Your task to perform on an android device: change notification settings in the gmail app Image 0: 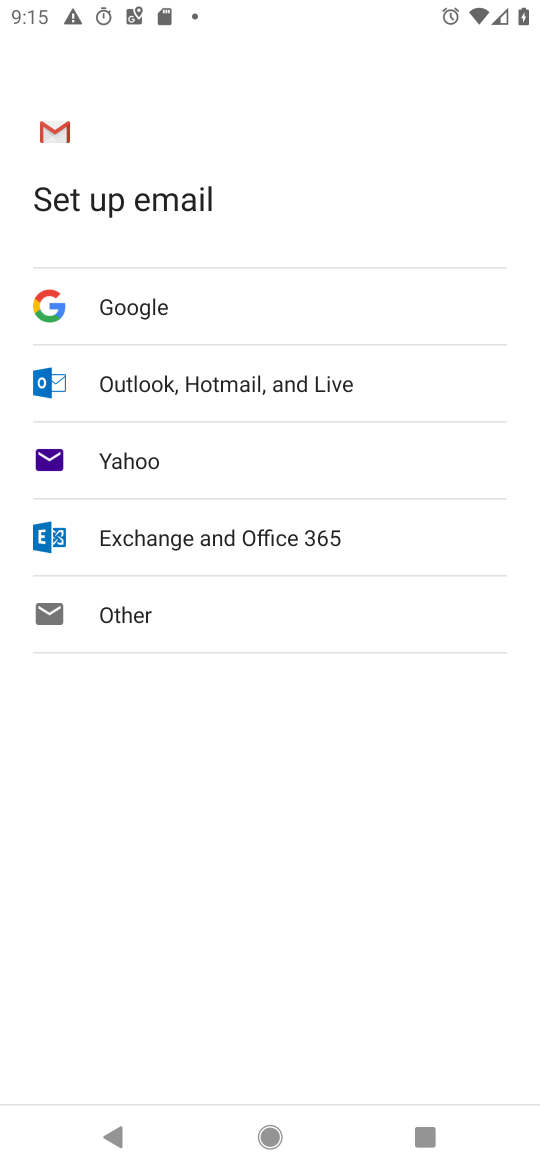
Step 0: press home button
Your task to perform on an android device: change notification settings in the gmail app Image 1: 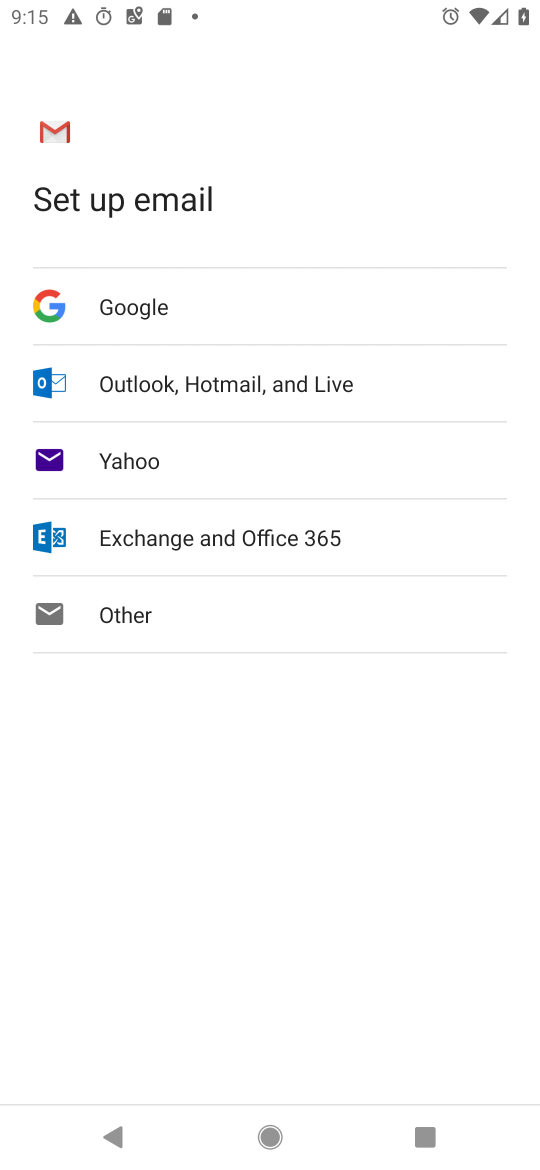
Step 1: drag from (259, 949) to (359, 24)
Your task to perform on an android device: change notification settings in the gmail app Image 2: 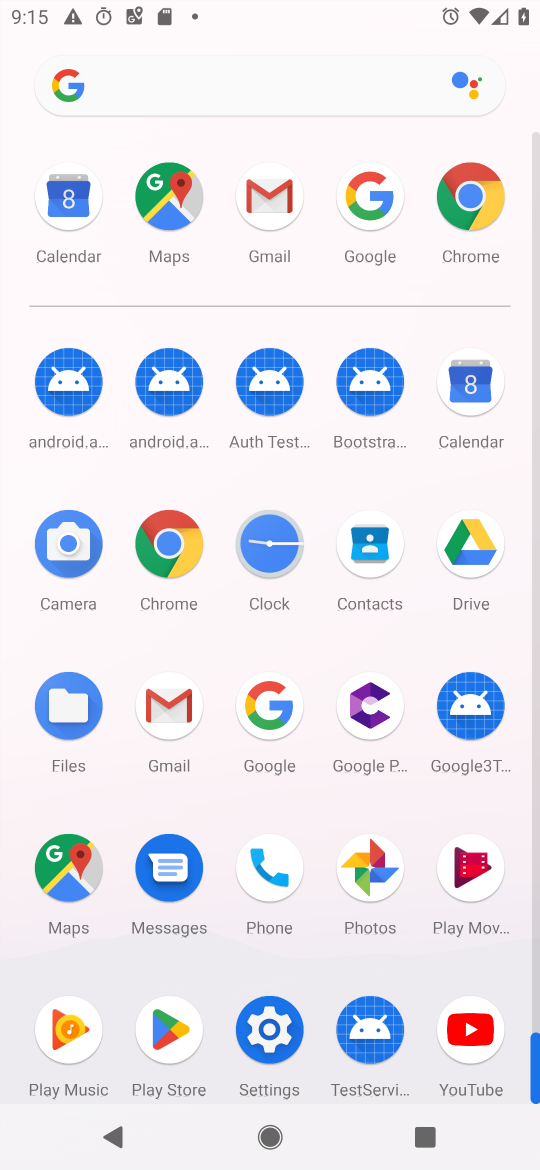
Step 2: click (159, 694)
Your task to perform on an android device: change notification settings in the gmail app Image 3: 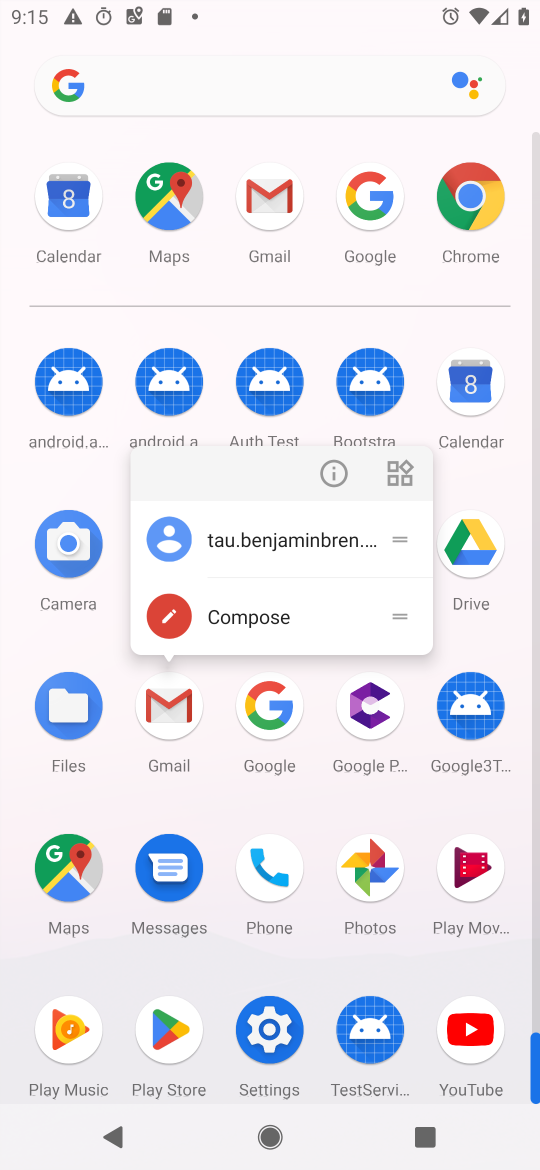
Step 3: click (329, 467)
Your task to perform on an android device: change notification settings in the gmail app Image 4: 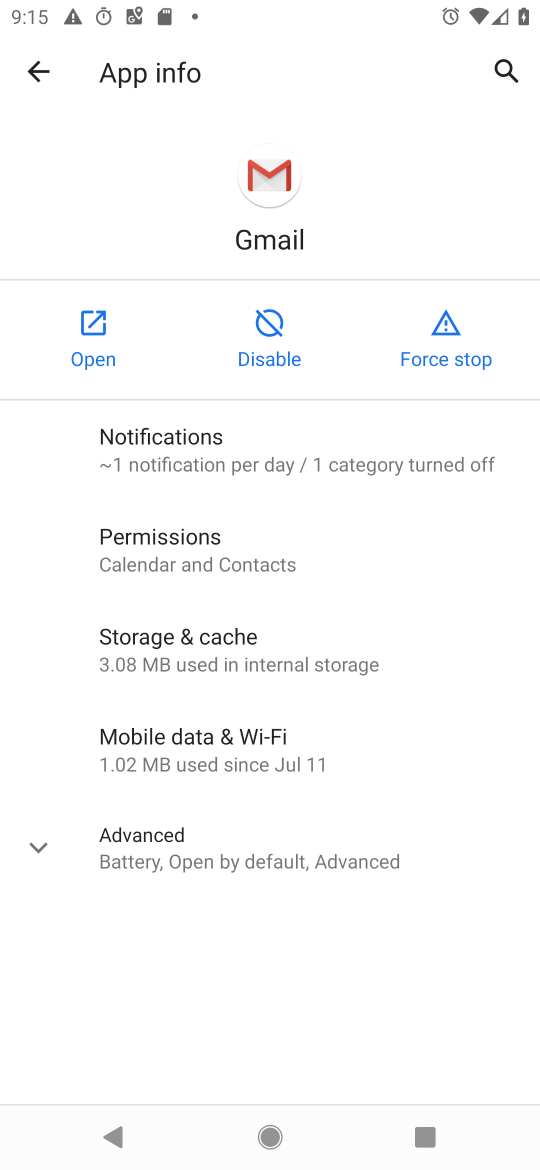
Step 4: click (79, 342)
Your task to perform on an android device: change notification settings in the gmail app Image 5: 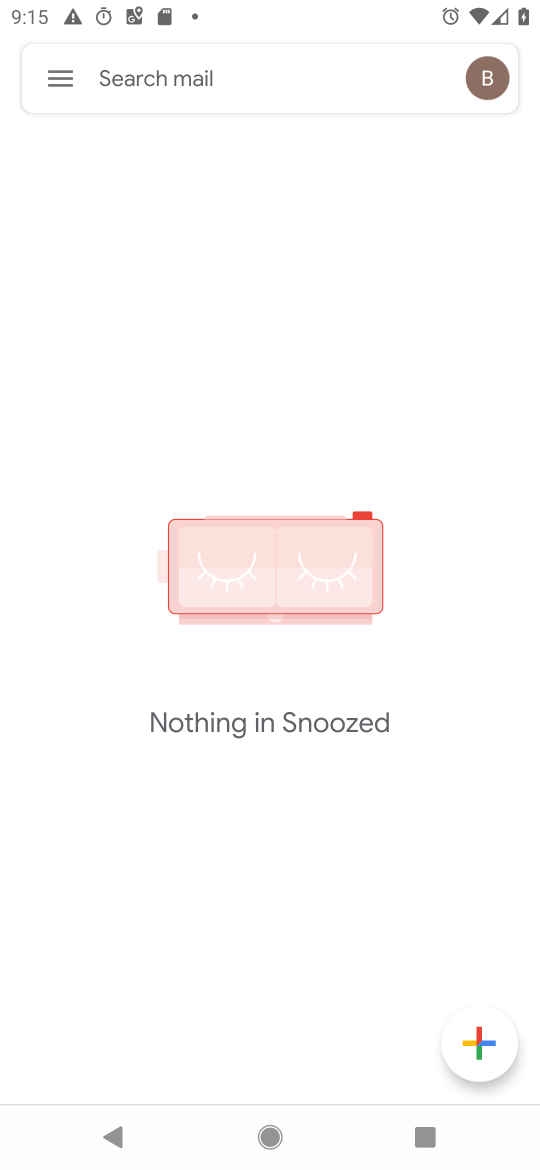
Step 5: click (76, 69)
Your task to perform on an android device: change notification settings in the gmail app Image 6: 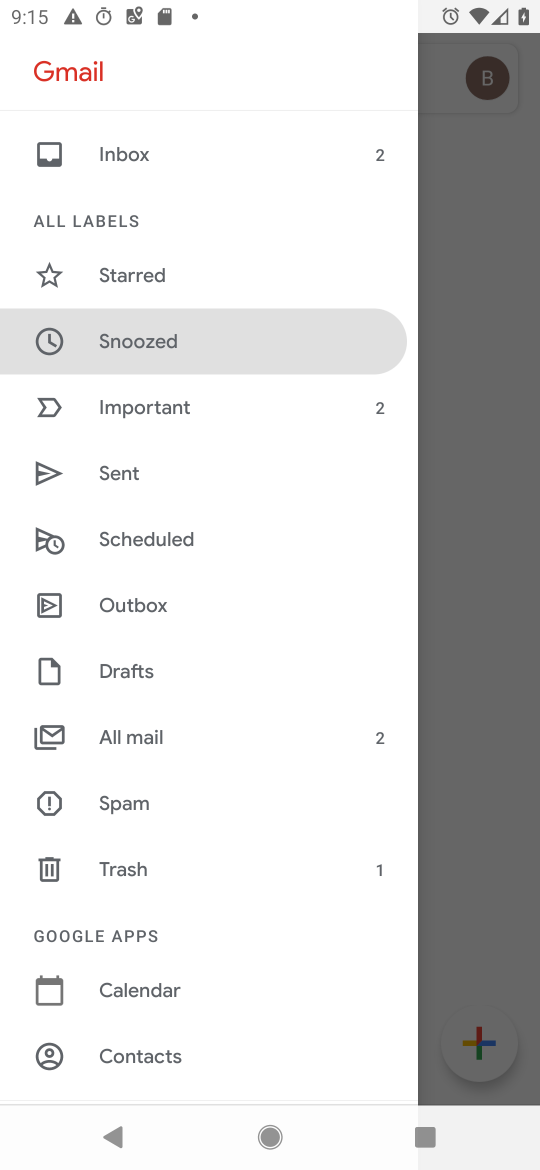
Step 6: drag from (145, 910) to (287, 68)
Your task to perform on an android device: change notification settings in the gmail app Image 7: 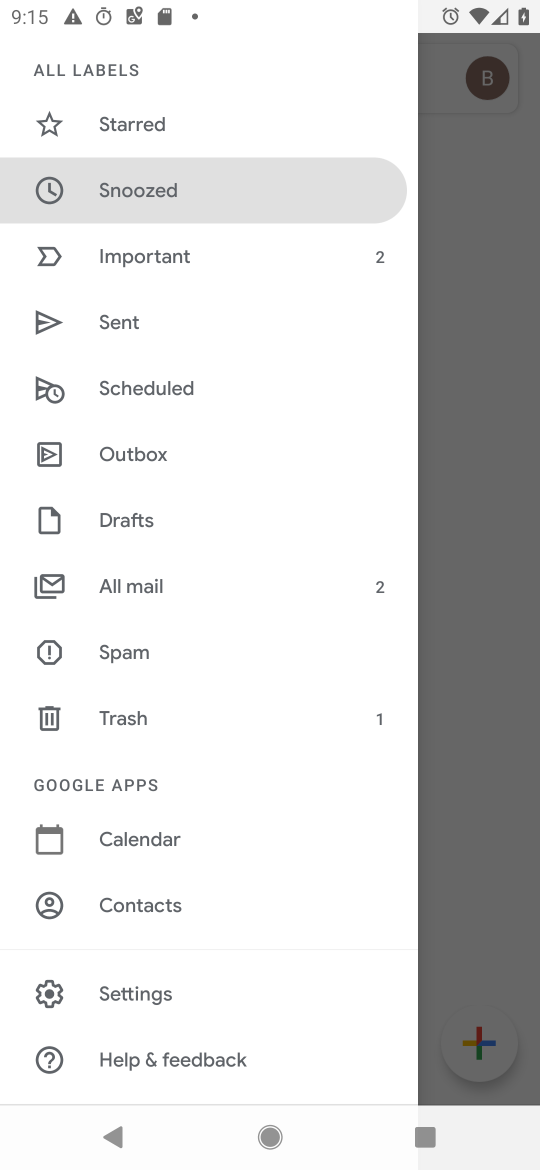
Step 7: click (142, 998)
Your task to perform on an android device: change notification settings in the gmail app Image 8: 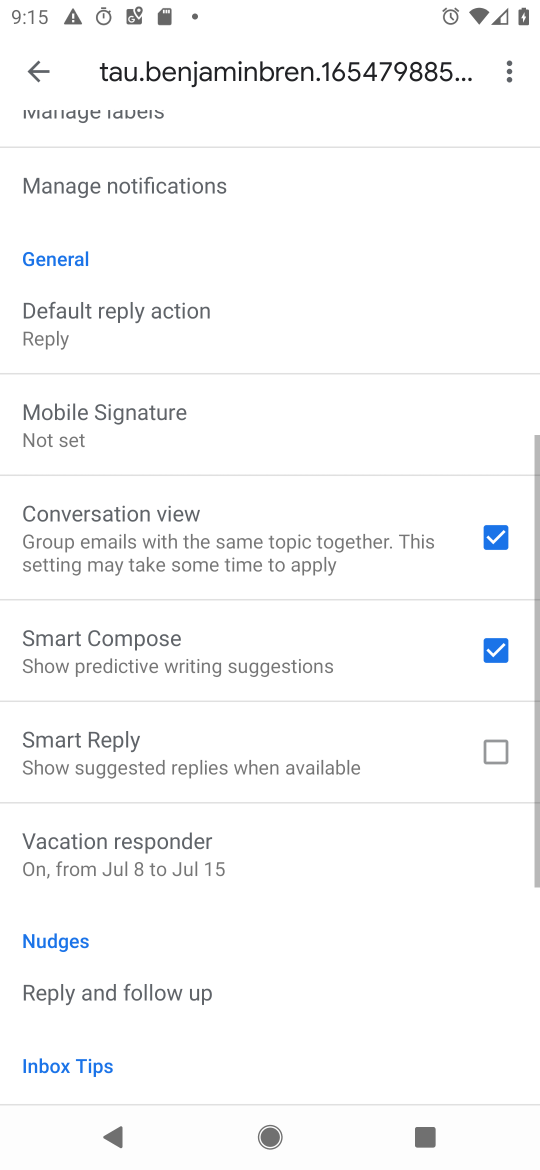
Step 8: drag from (178, 887) to (271, 319)
Your task to perform on an android device: change notification settings in the gmail app Image 9: 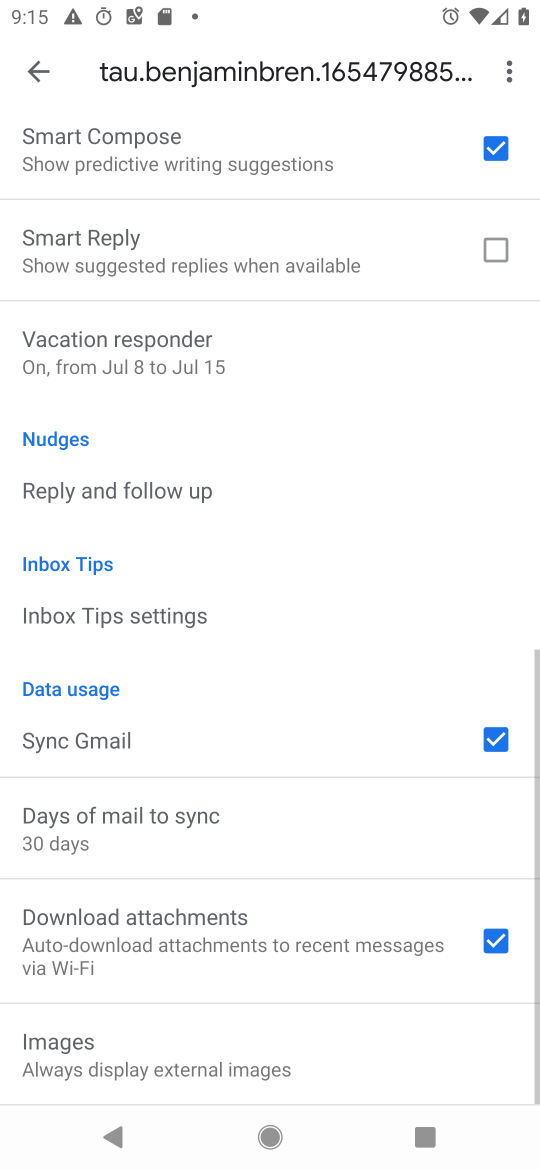
Step 9: drag from (227, 494) to (291, 1163)
Your task to perform on an android device: change notification settings in the gmail app Image 10: 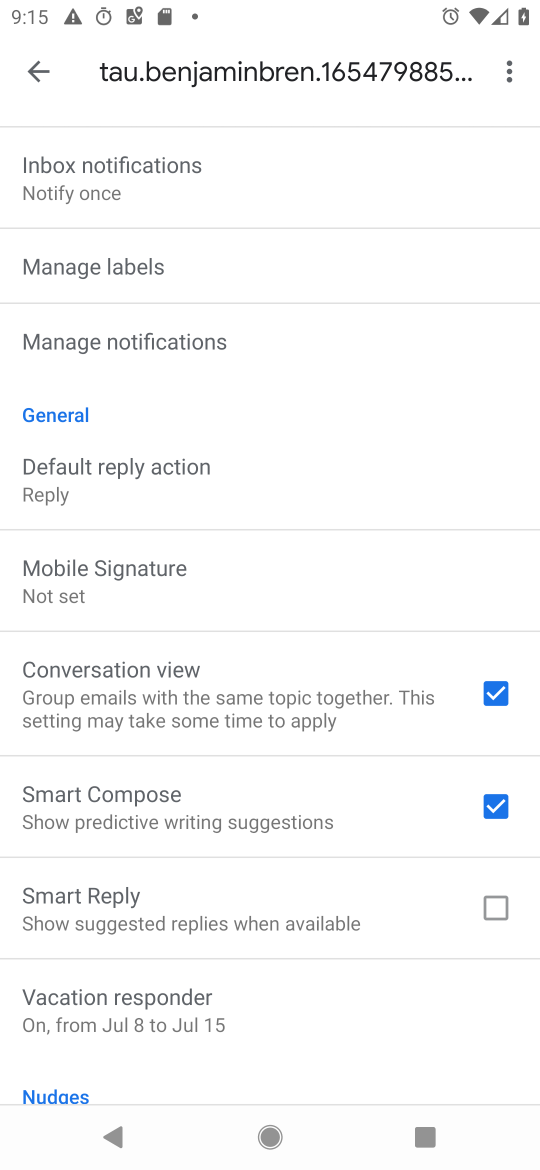
Step 10: click (172, 348)
Your task to perform on an android device: change notification settings in the gmail app Image 11: 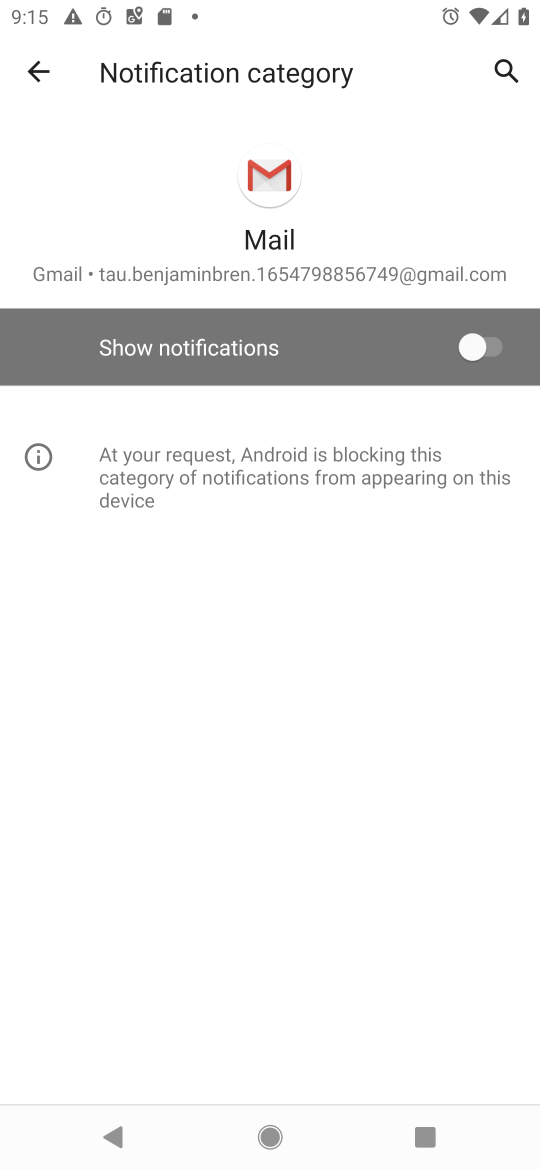
Step 11: drag from (390, 843) to (392, 680)
Your task to perform on an android device: change notification settings in the gmail app Image 12: 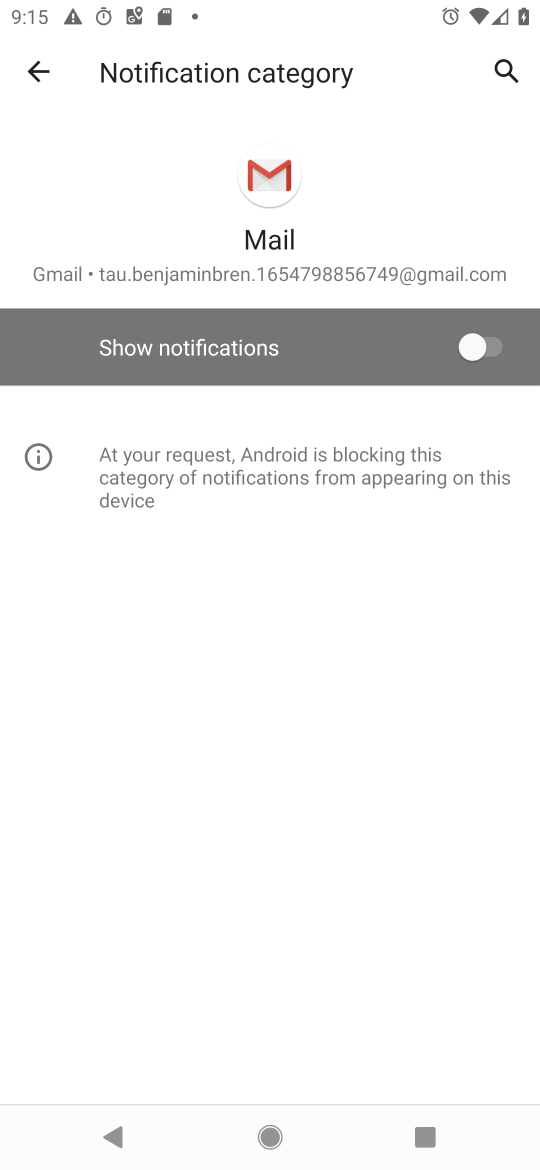
Step 12: click (459, 342)
Your task to perform on an android device: change notification settings in the gmail app Image 13: 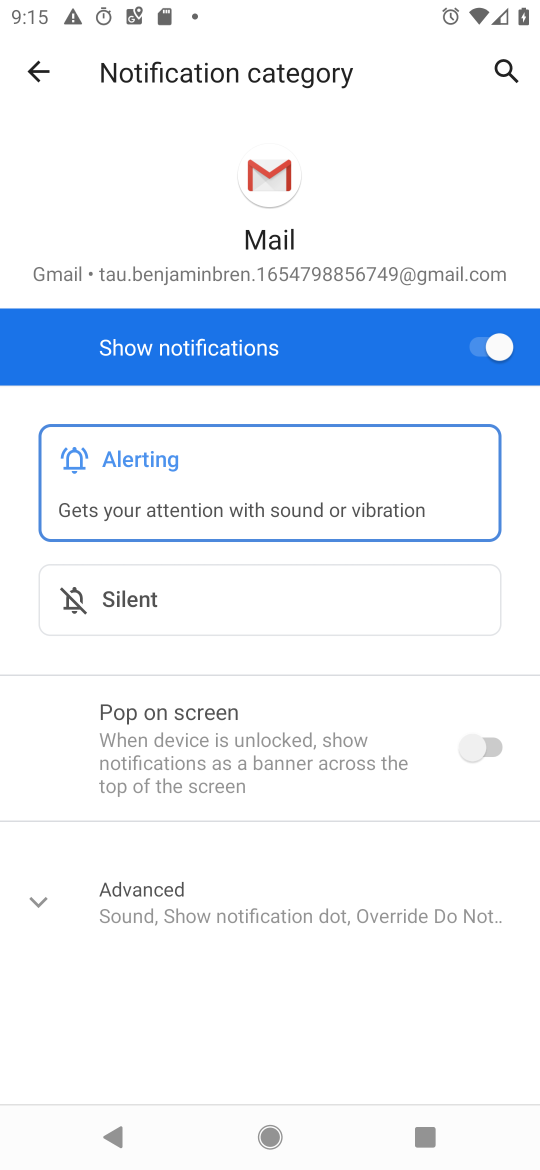
Step 13: task complete